Your task to perform on an android device: Open Google Chrome and open the bookmarks view Image 0: 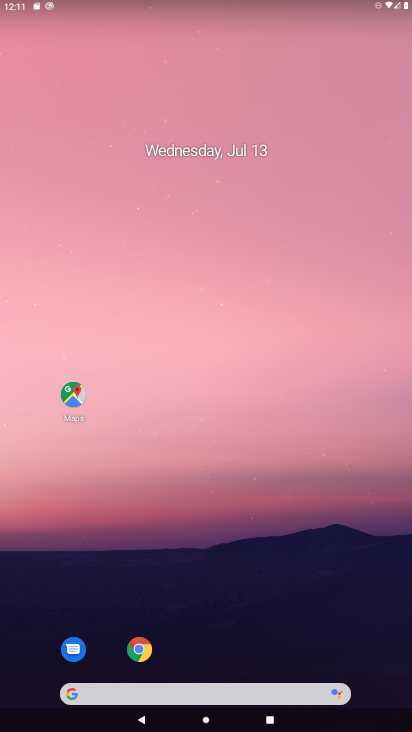
Step 0: click (139, 648)
Your task to perform on an android device: Open Google Chrome and open the bookmarks view Image 1: 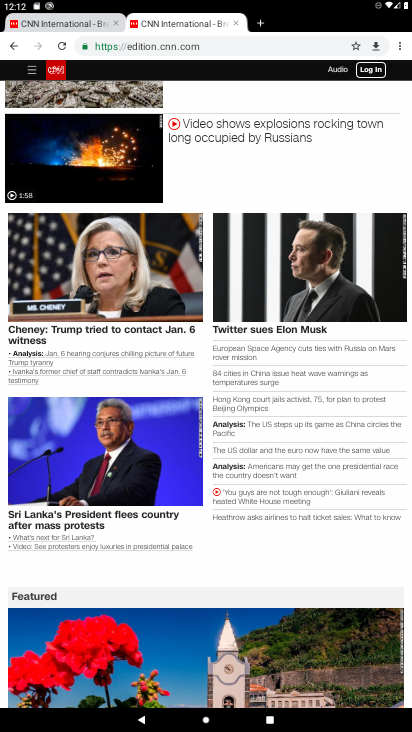
Step 1: click (398, 50)
Your task to perform on an android device: Open Google Chrome and open the bookmarks view Image 2: 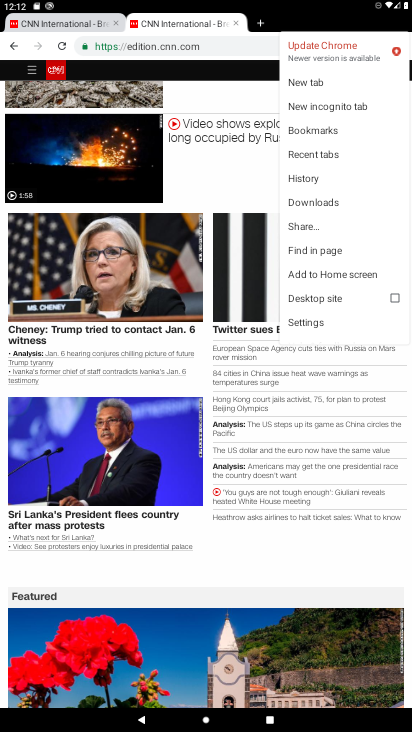
Step 2: click (310, 131)
Your task to perform on an android device: Open Google Chrome and open the bookmarks view Image 3: 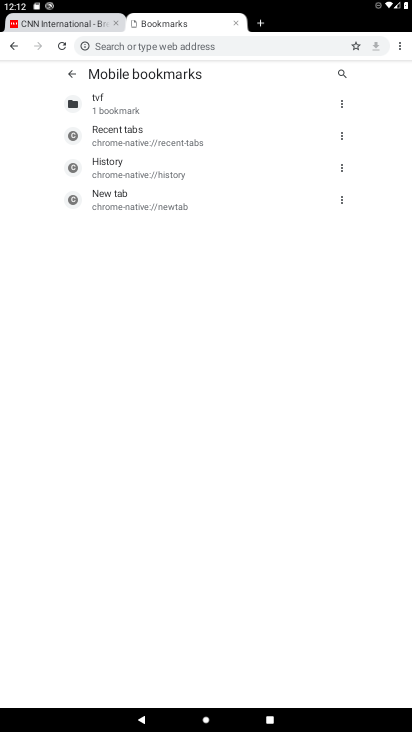
Step 3: task complete